Your task to perform on an android device: Open Chrome and go to the settings page Image 0: 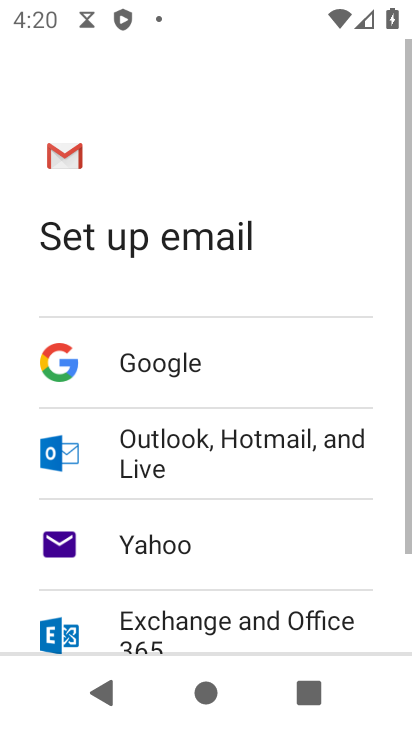
Step 0: press home button
Your task to perform on an android device: Open Chrome and go to the settings page Image 1: 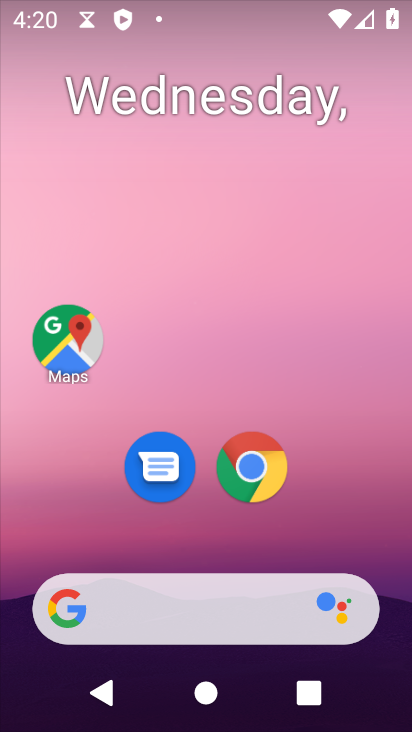
Step 1: drag from (336, 532) to (248, 1)
Your task to perform on an android device: Open Chrome and go to the settings page Image 2: 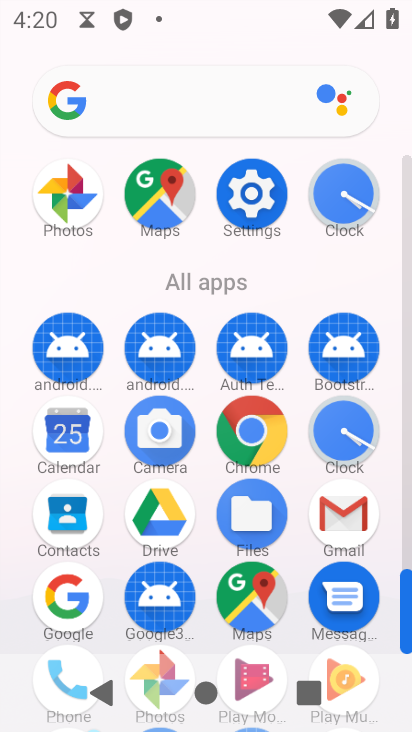
Step 2: click (348, 522)
Your task to perform on an android device: Open Chrome and go to the settings page Image 3: 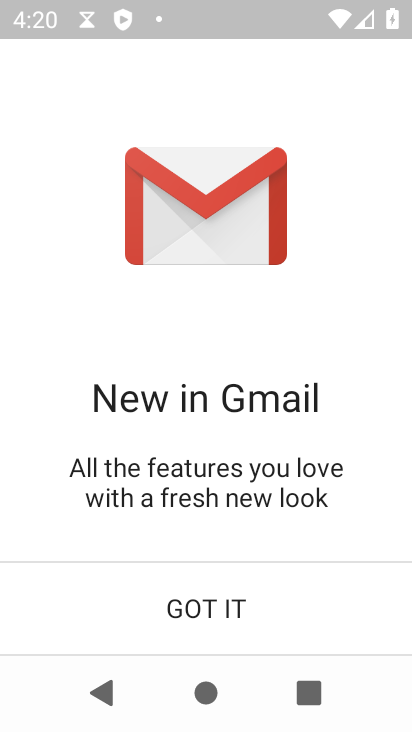
Step 3: click (243, 605)
Your task to perform on an android device: Open Chrome and go to the settings page Image 4: 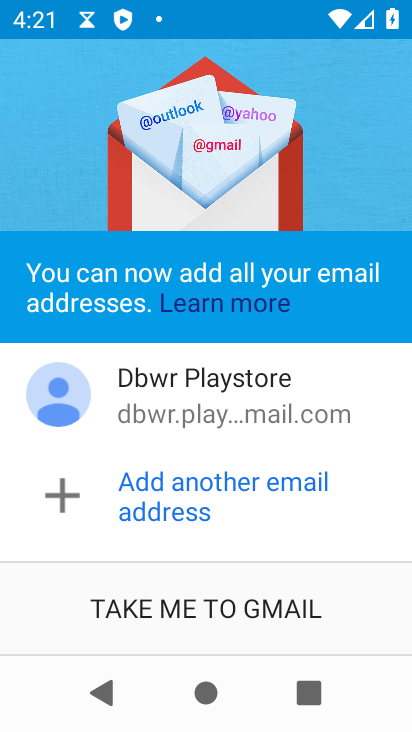
Step 4: press home button
Your task to perform on an android device: Open Chrome and go to the settings page Image 5: 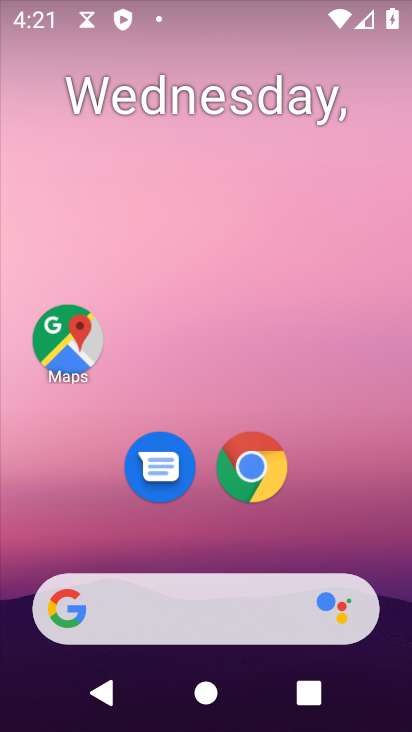
Step 5: drag from (341, 470) to (293, 32)
Your task to perform on an android device: Open Chrome and go to the settings page Image 6: 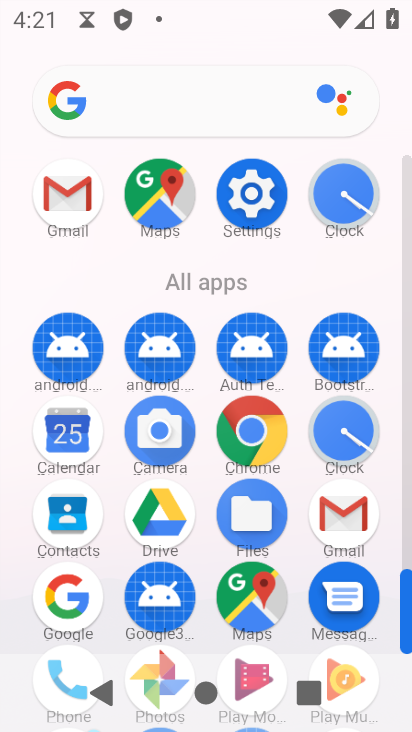
Step 6: click (237, 460)
Your task to perform on an android device: Open Chrome and go to the settings page Image 7: 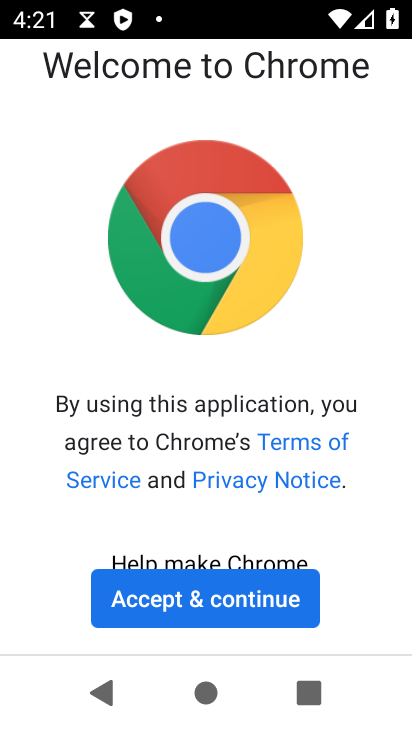
Step 7: click (260, 603)
Your task to perform on an android device: Open Chrome and go to the settings page Image 8: 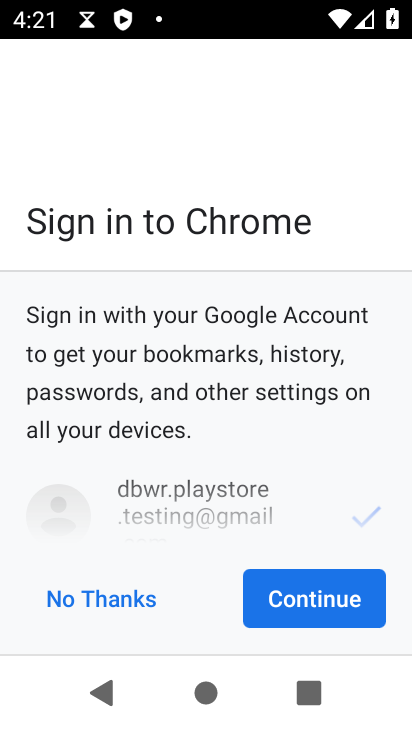
Step 8: click (50, 618)
Your task to perform on an android device: Open Chrome and go to the settings page Image 9: 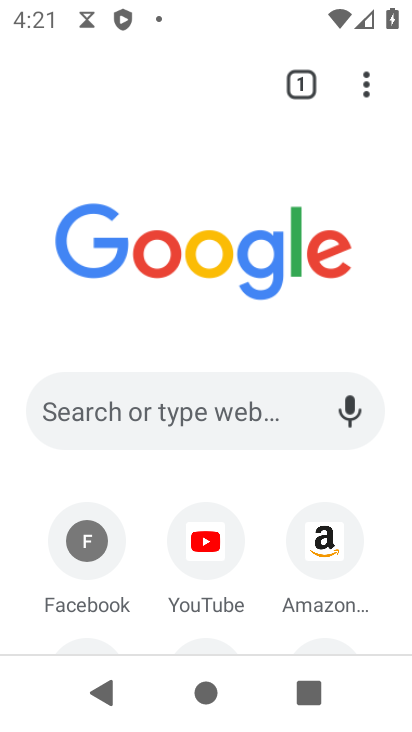
Step 9: task complete